Your task to perform on an android device: add a contact in the contacts app Image 0: 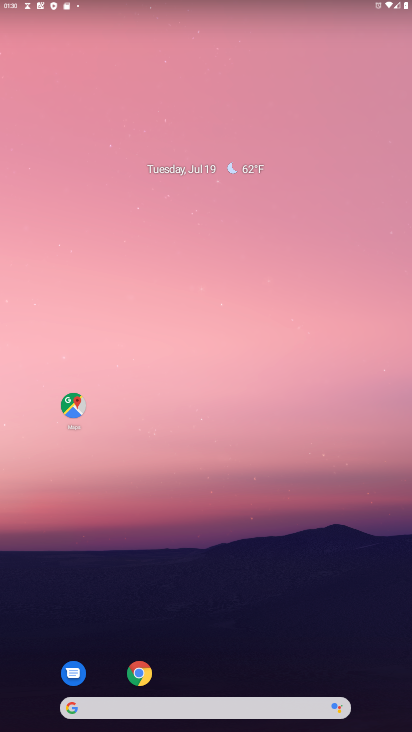
Step 0: drag from (179, 678) to (179, 132)
Your task to perform on an android device: add a contact in the contacts app Image 1: 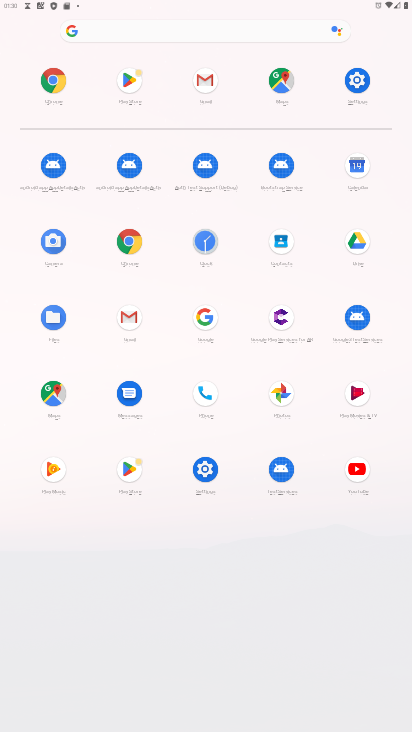
Step 1: click (206, 390)
Your task to perform on an android device: add a contact in the contacts app Image 2: 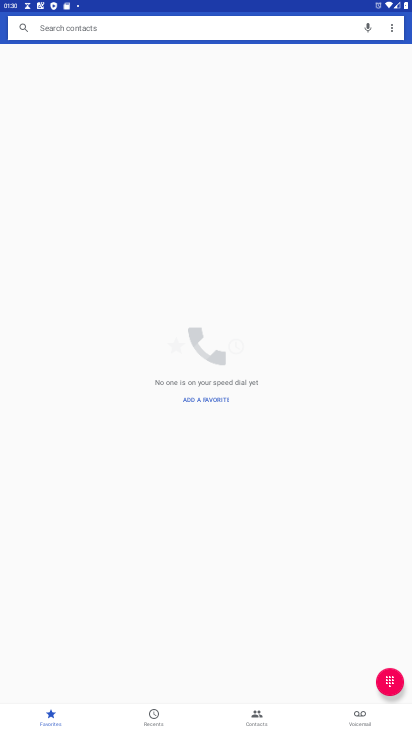
Step 2: click (215, 402)
Your task to perform on an android device: add a contact in the contacts app Image 3: 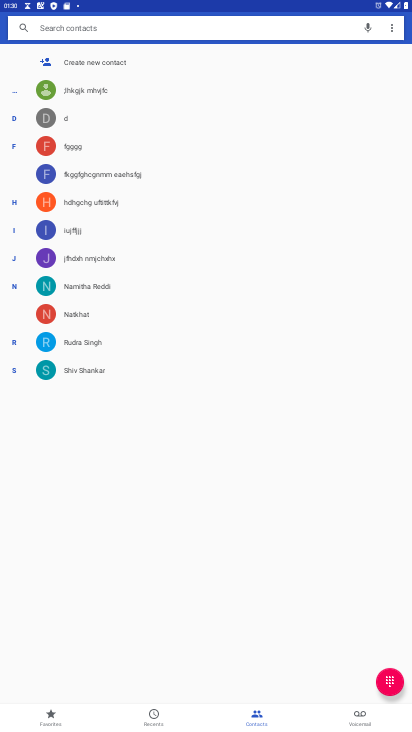
Step 3: click (110, 65)
Your task to perform on an android device: add a contact in the contacts app Image 4: 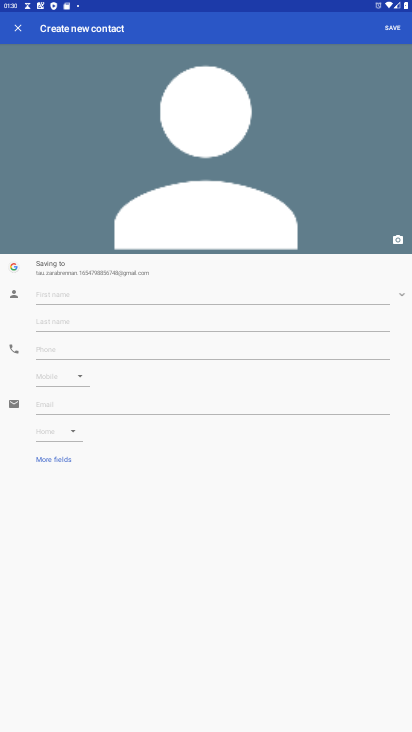
Step 4: click (162, 279)
Your task to perform on an android device: add a contact in the contacts app Image 5: 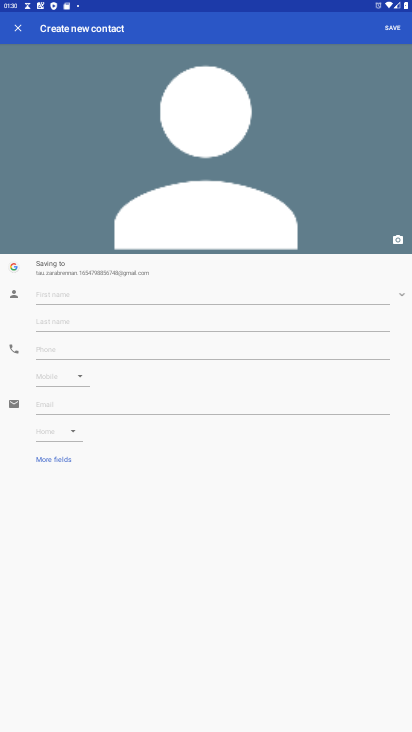
Step 5: type "ggggggggggggggggg "
Your task to perform on an android device: add a contact in the contacts app Image 6: 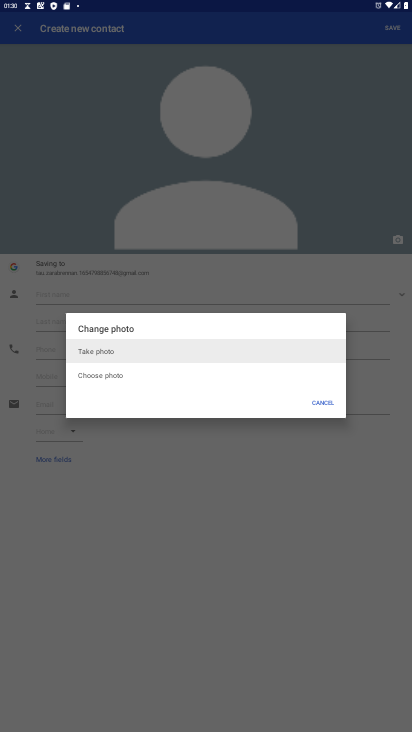
Step 6: click (253, 555)
Your task to perform on an android device: add a contact in the contacts app Image 7: 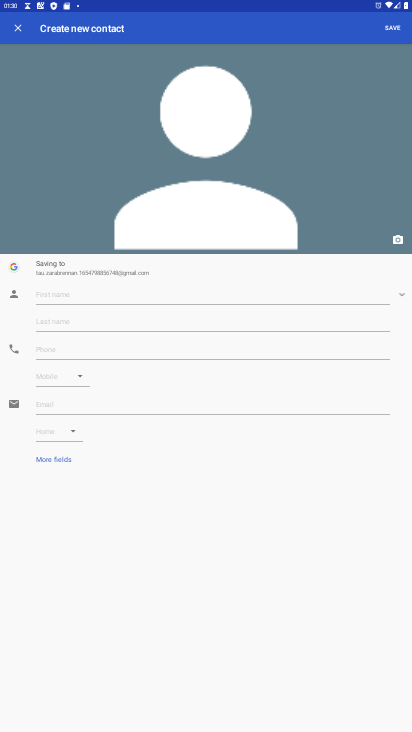
Step 7: click (131, 289)
Your task to perform on an android device: add a contact in the contacts app Image 8: 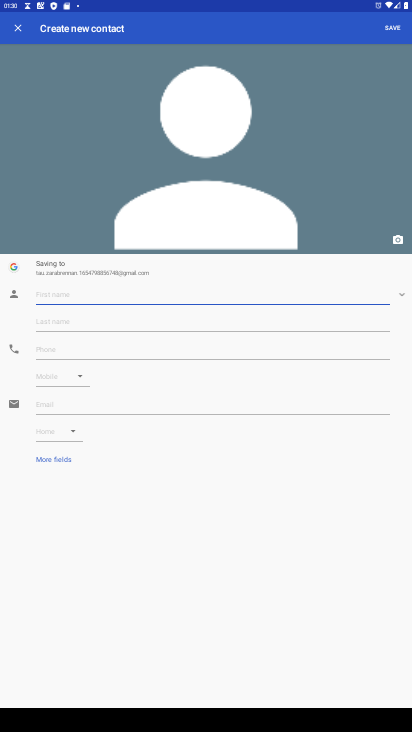
Step 8: type "iiiiiiiiiiiiiii "
Your task to perform on an android device: add a contact in the contacts app Image 9: 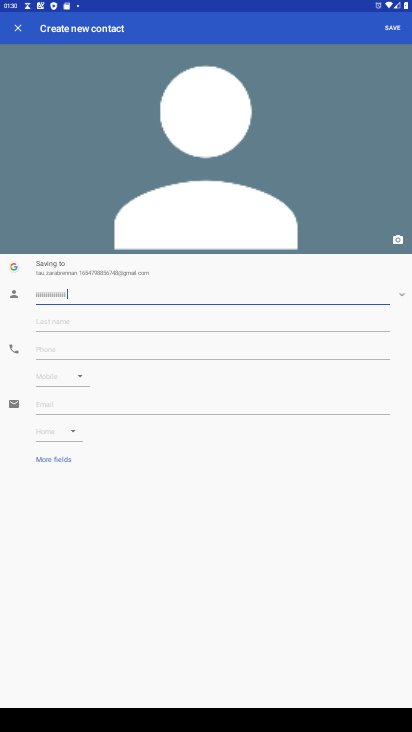
Step 9: click (102, 346)
Your task to perform on an android device: add a contact in the contacts app Image 10: 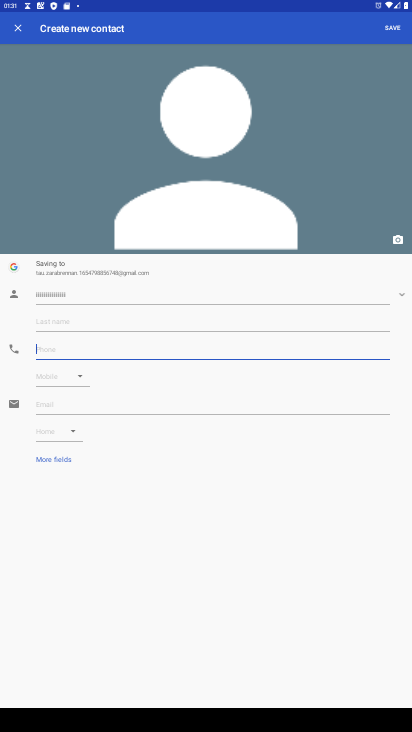
Step 10: type "999999999999999999999999 "
Your task to perform on an android device: add a contact in the contacts app Image 11: 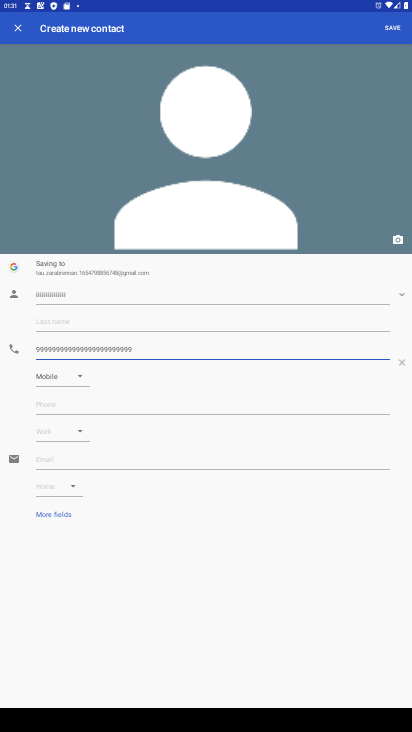
Step 11: click (387, 26)
Your task to perform on an android device: add a contact in the contacts app Image 12: 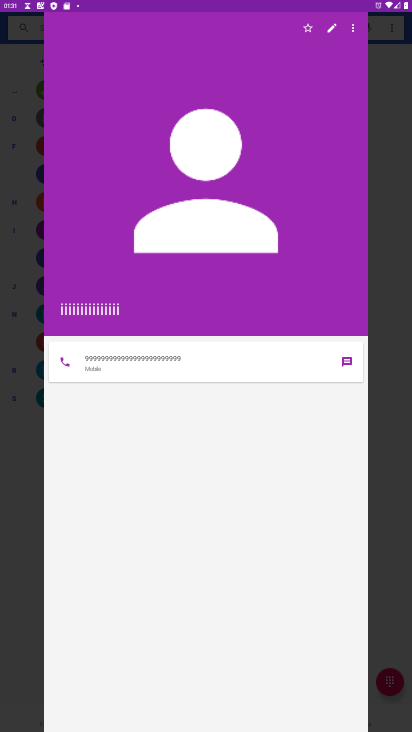
Step 12: task complete